Your task to perform on an android device: turn pop-ups on in chrome Image 0: 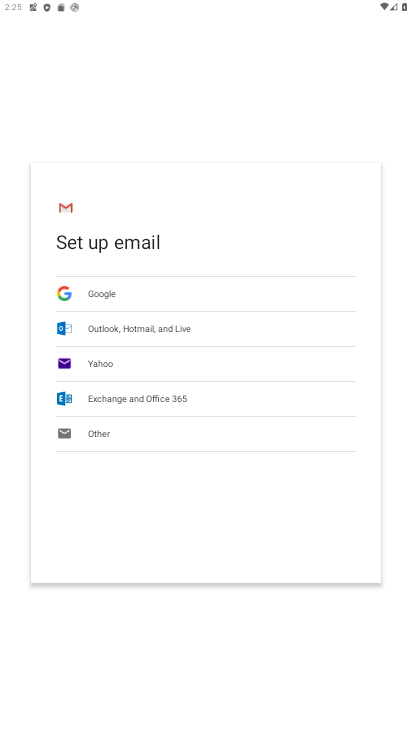
Step 0: press home button
Your task to perform on an android device: turn pop-ups on in chrome Image 1: 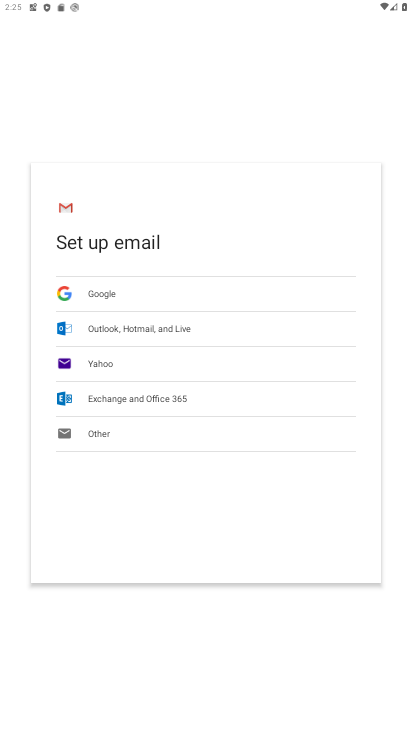
Step 1: press home button
Your task to perform on an android device: turn pop-ups on in chrome Image 2: 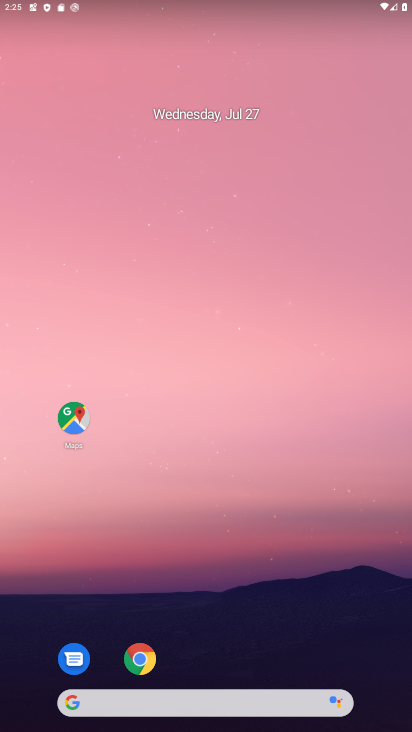
Step 2: click (141, 659)
Your task to perform on an android device: turn pop-ups on in chrome Image 3: 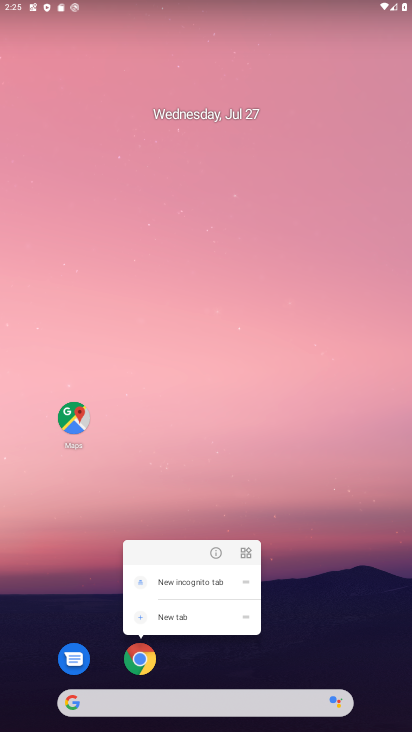
Step 3: click (139, 659)
Your task to perform on an android device: turn pop-ups on in chrome Image 4: 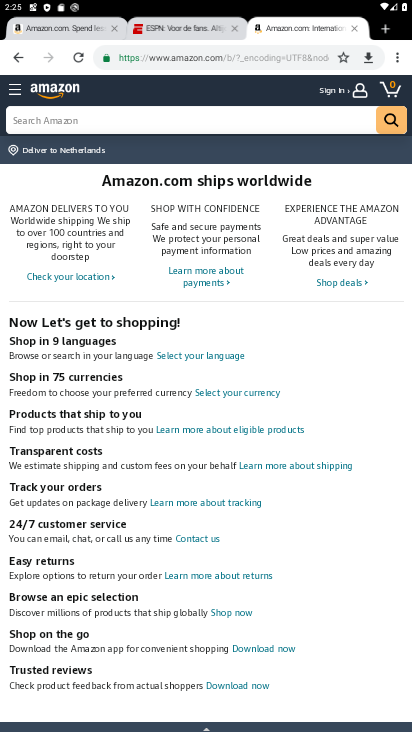
Step 4: click (399, 61)
Your task to perform on an android device: turn pop-ups on in chrome Image 5: 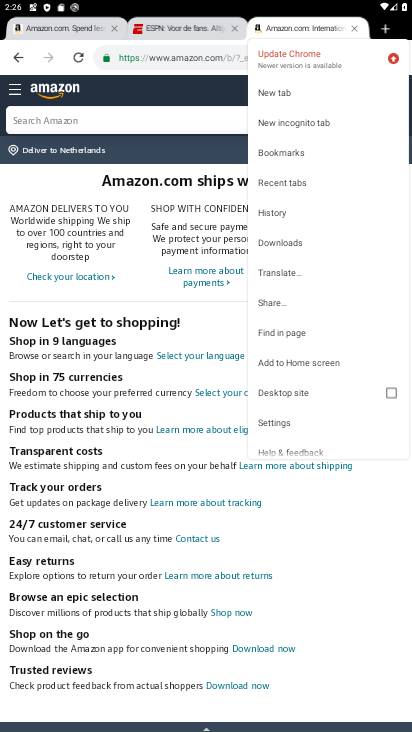
Step 5: click (268, 420)
Your task to perform on an android device: turn pop-ups on in chrome Image 6: 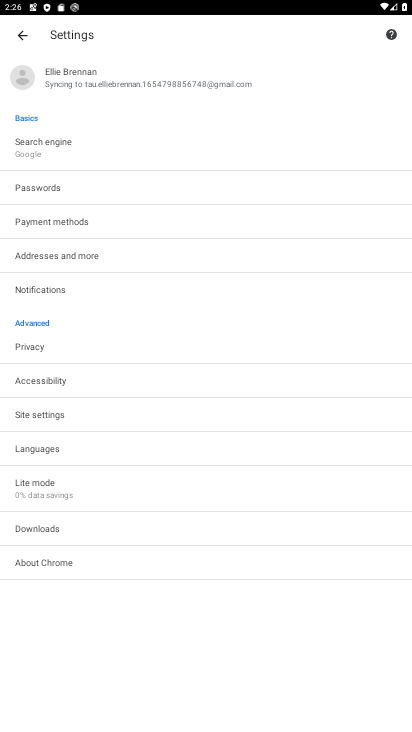
Step 6: click (46, 412)
Your task to perform on an android device: turn pop-ups on in chrome Image 7: 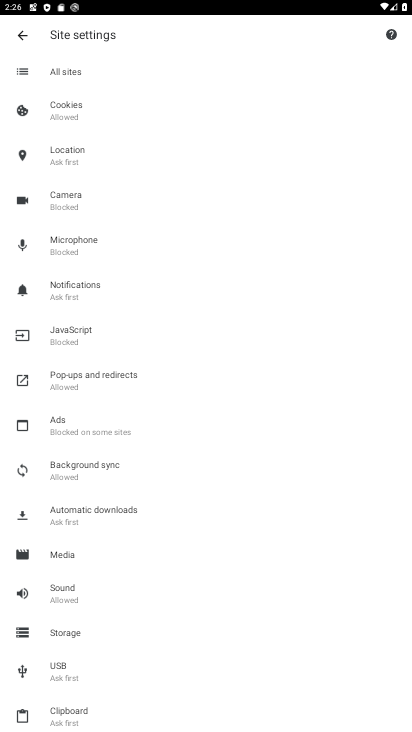
Step 7: click (96, 371)
Your task to perform on an android device: turn pop-ups on in chrome Image 8: 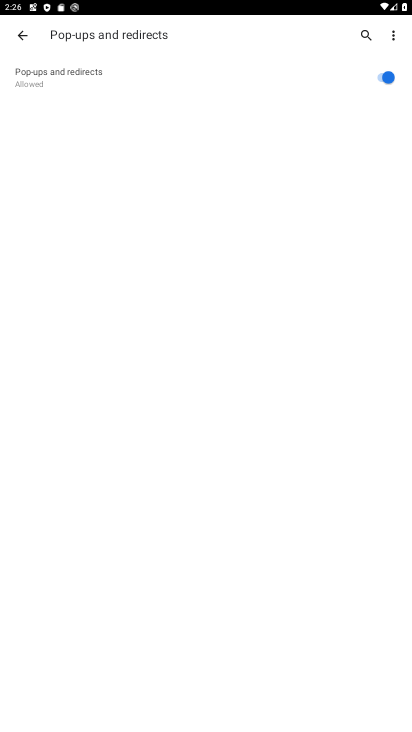
Step 8: task complete